Your task to perform on an android device: Go to notification settings Image 0: 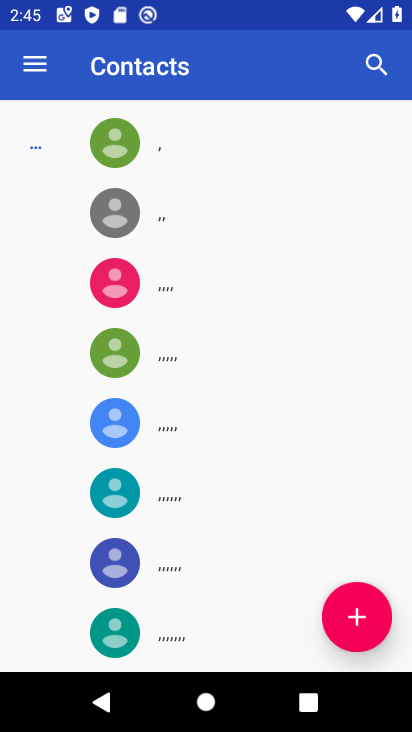
Step 0: press home button
Your task to perform on an android device: Go to notification settings Image 1: 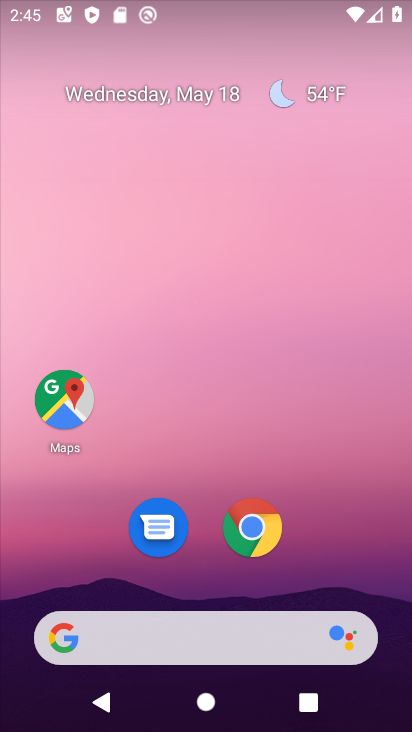
Step 1: drag from (196, 567) to (394, 377)
Your task to perform on an android device: Go to notification settings Image 2: 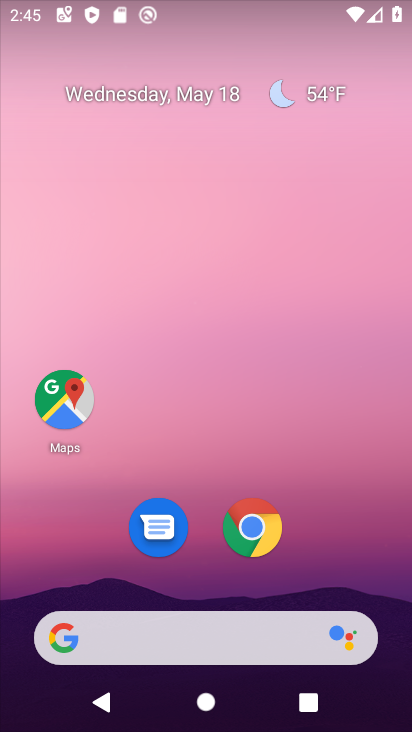
Step 2: drag from (223, 578) to (125, 2)
Your task to perform on an android device: Go to notification settings Image 3: 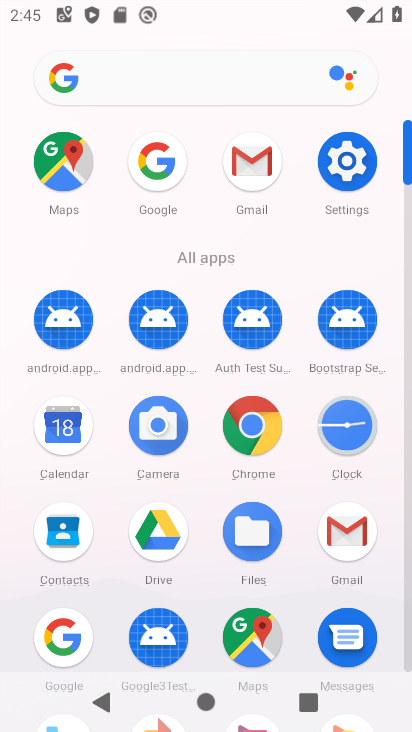
Step 3: click (326, 167)
Your task to perform on an android device: Go to notification settings Image 4: 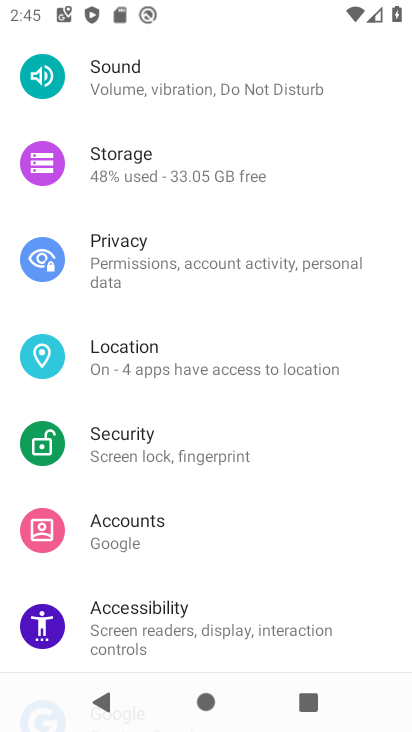
Step 4: drag from (187, 155) to (199, 466)
Your task to perform on an android device: Go to notification settings Image 5: 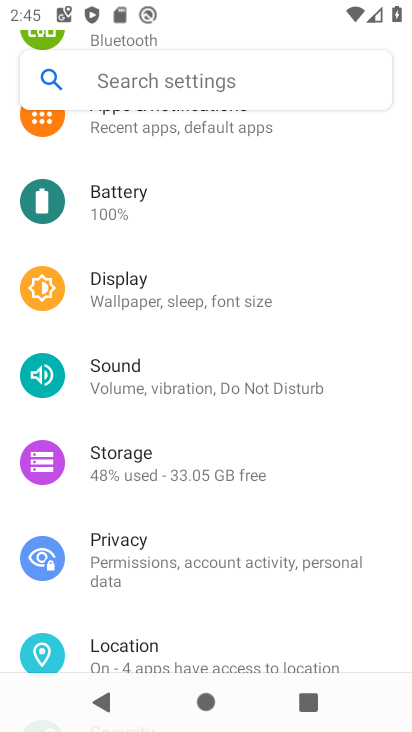
Step 5: click (168, 134)
Your task to perform on an android device: Go to notification settings Image 6: 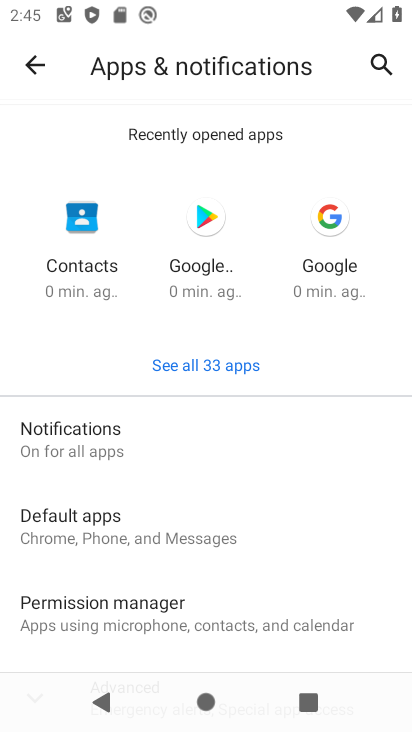
Step 6: click (152, 439)
Your task to perform on an android device: Go to notification settings Image 7: 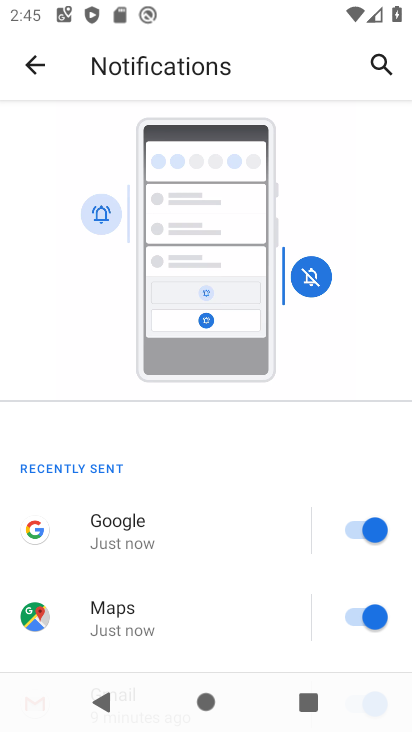
Step 7: task complete